Your task to perform on an android device: turn off picture-in-picture Image 0: 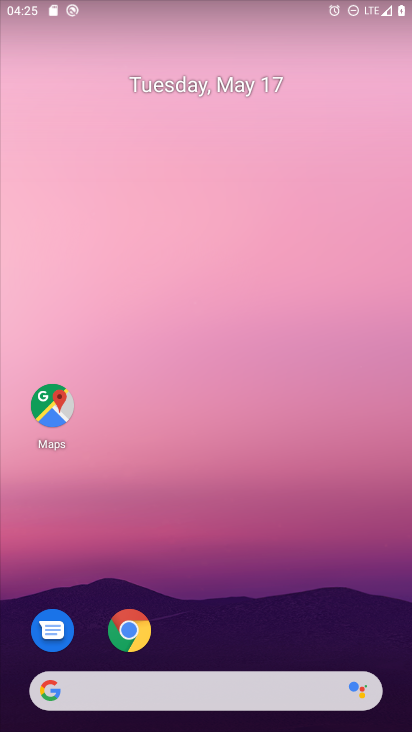
Step 0: drag from (231, 612) to (296, 97)
Your task to perform on an android device: turn off picture-in-picture Image 1: 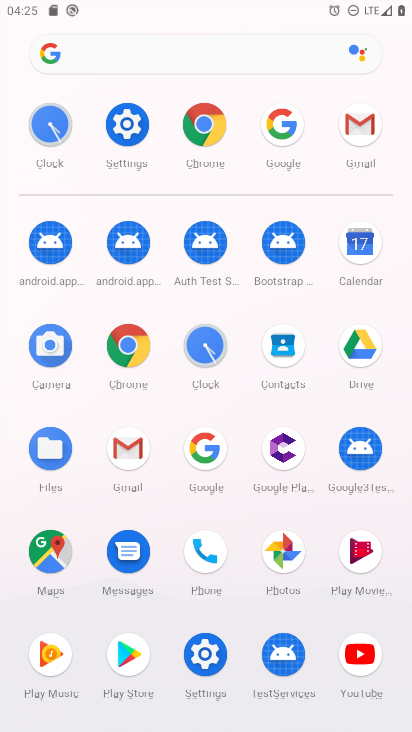
Step 1: click (128, 120)
Your task to perform on an android device: turn off picture-in-picture Image 2: 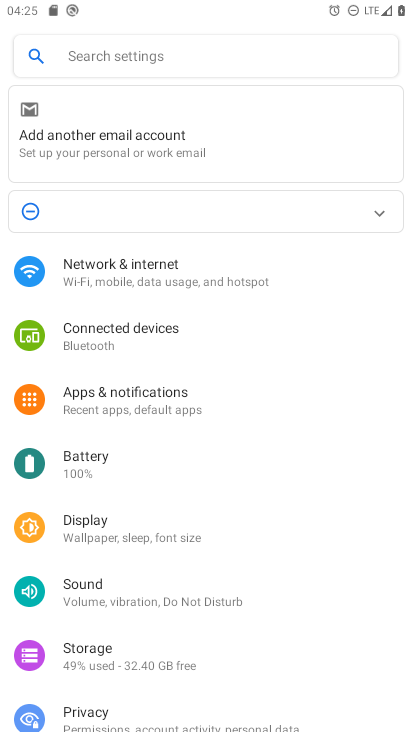
Step 2: click (140, 397)
Your task to perform on an android device: turn off picture-in-picture Image 3: 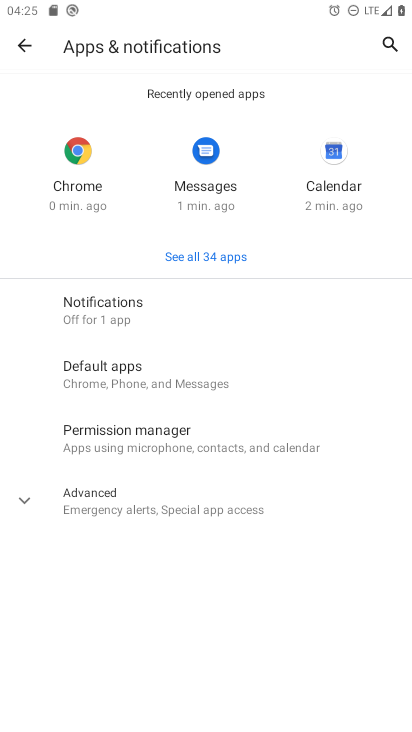
Step 3: click (130, 304)
Your task to perform on an android device: turn off picture-in-picture Image 4: 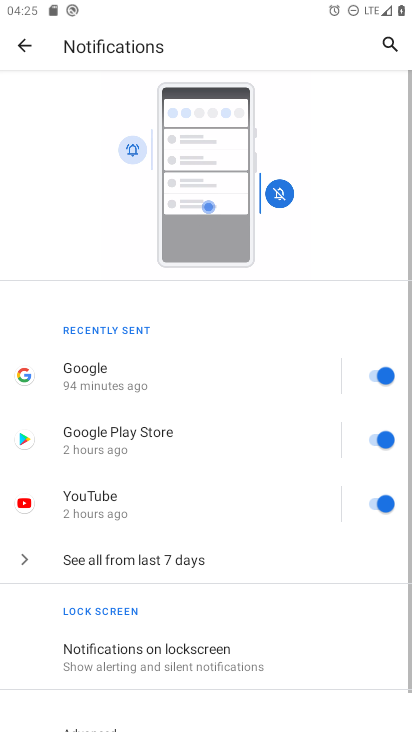
Step 4: drag from (204, 609) to (281, 73)
Your task to perform on an android device: turn off picture-in-picture Image 5: 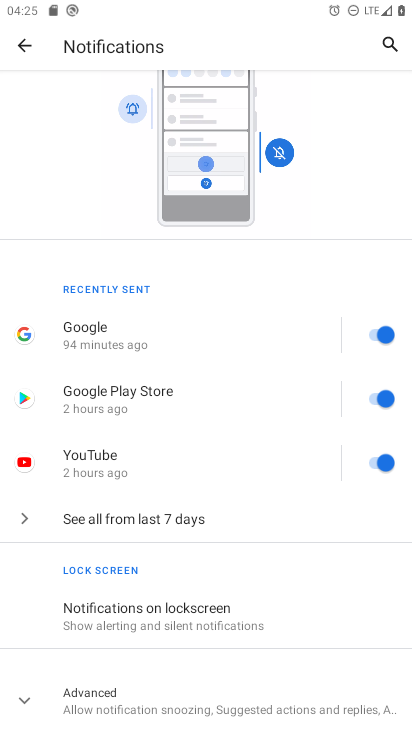
Step 5: click (209, 694)
Your task to perform on an android device: turn off picture-in-picture Image 6: 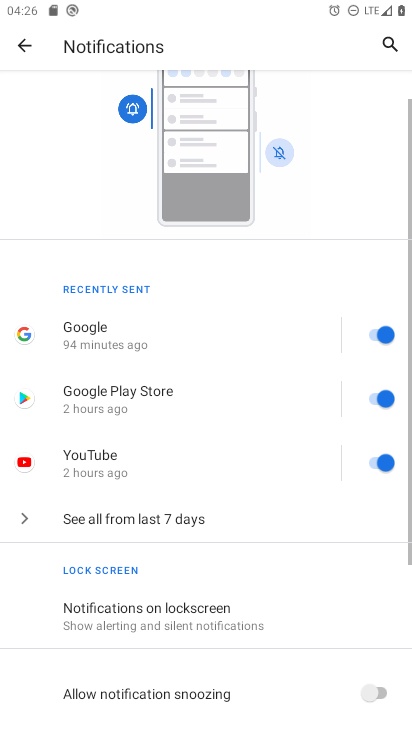
Step 6: drag from (199, 665) to (257, 100)
Your task to perform on an android device: turn off picture-in-picture Image 7: 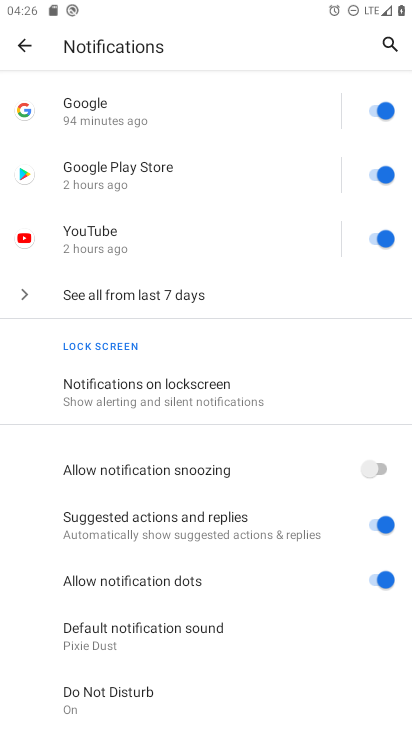
Step 7: drag from (173, 661) to (226, 161)
Your task to perform on an android device: turn off picture-in-picture Image 8: 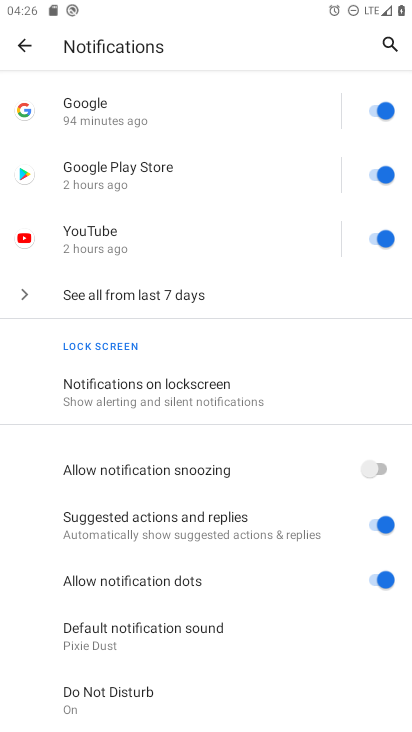
Step 8: click (28, 51)
Your task to perform on an android device: turn off picture-in-picture Image 9: 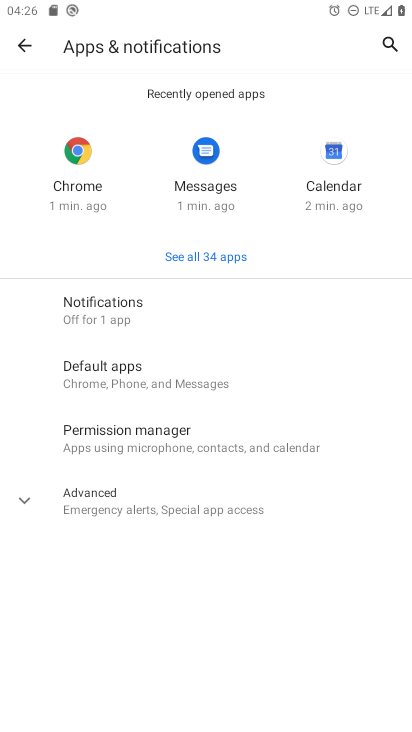
Step 9: click (159, 503)
Your task to perform on an android device: turn off picture-in-picture Image 10: 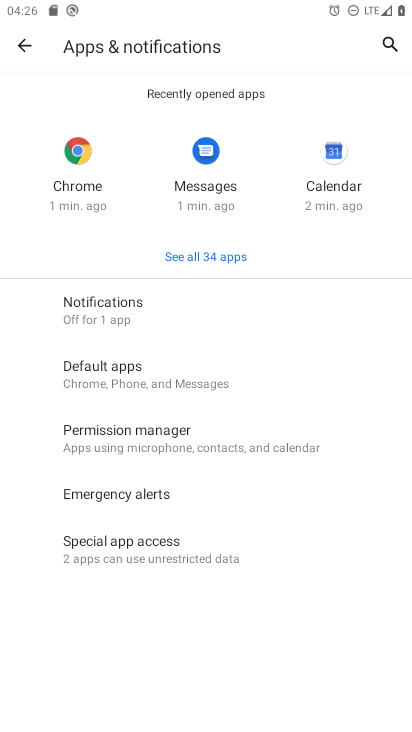
Step 10: click (149, 553)
Your task to perform on an android device: turn off picture-in-picture Image 11: 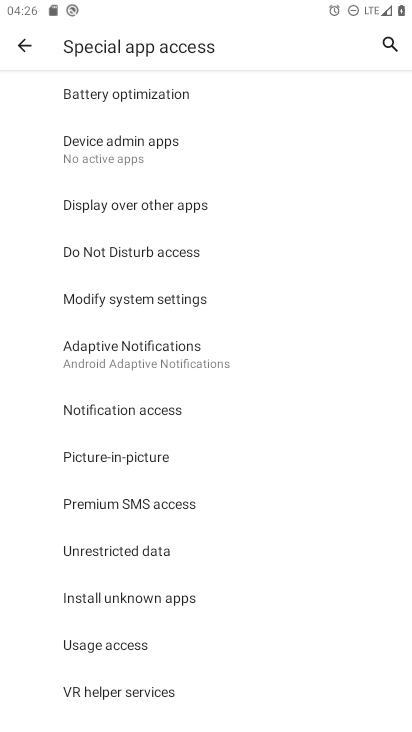
Step 11: click (113, 460)
Your task to perform on an android device: turn off picture-in-picture Image 12: 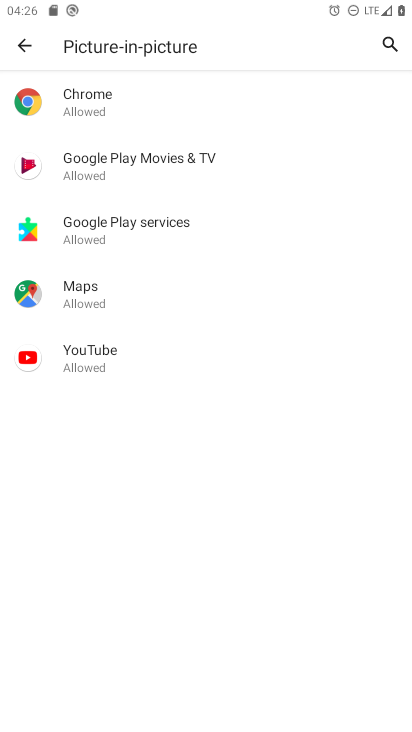
Step 12: click (84, 91)
Your task to perform on an android device: turn off picture-in-picture Image 13: 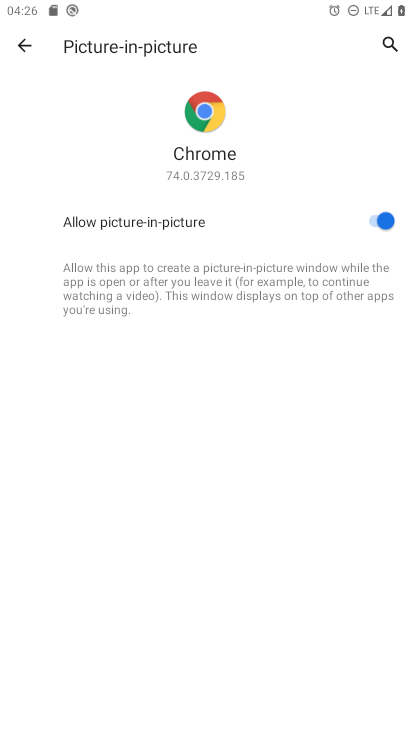
Step 13: click (374, 218)
Your task to perform on an android device: turn off picture-in-picture Image 14: 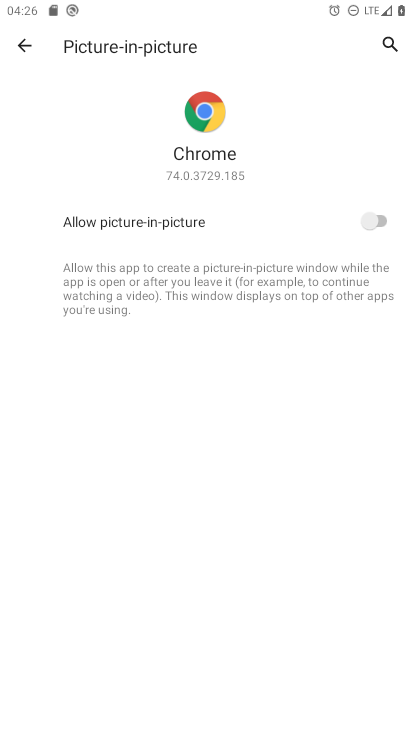
Step 14: task complete